Your task to perform on an android device: Add logitech g933 to the cart on target, then select checkout. Image 0: 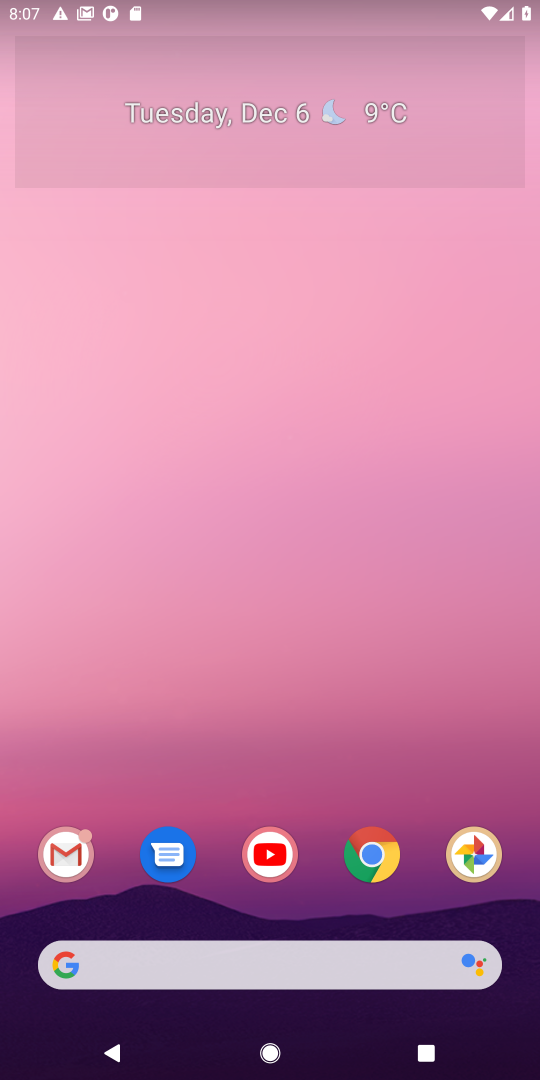
Step 0: click (369, 863)
Your task to perform on an android device: Add logitech g933 to the cart on target, then select checkout. Image 1: 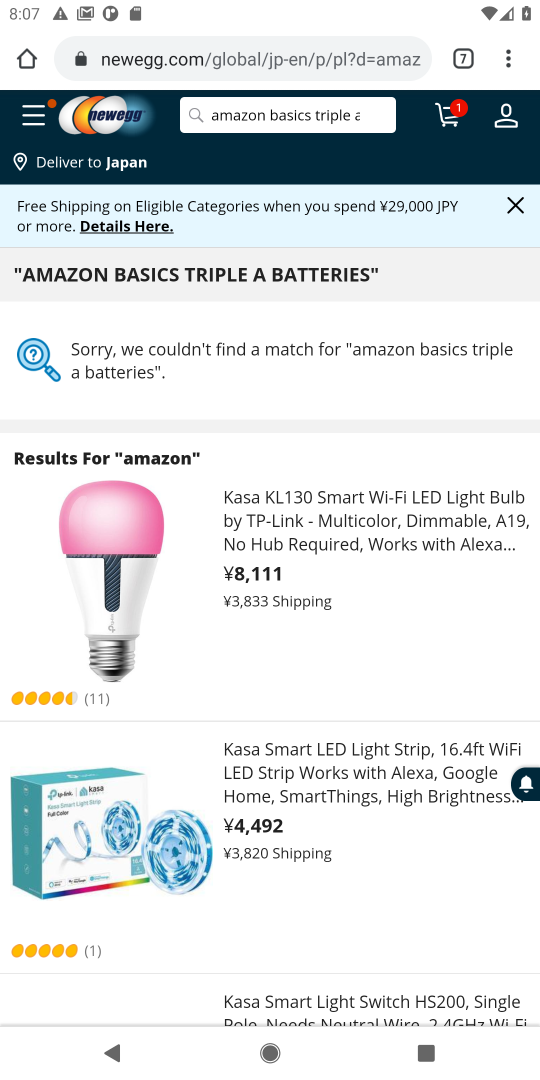
Step 1: click (468, 56)
Your task to perform on an android device: Add logitech g933 to the cart on target, then select checkout. Image 2: 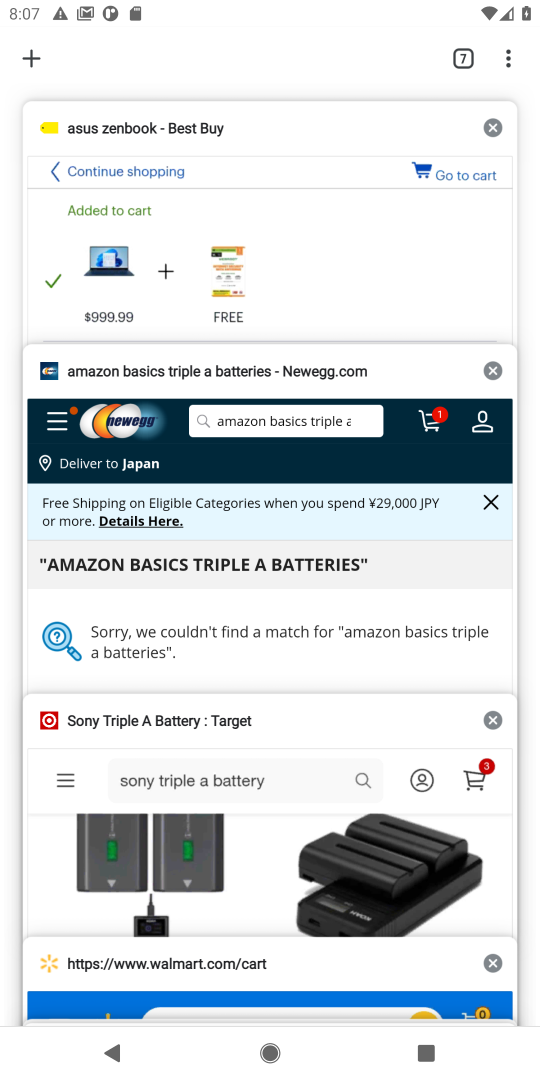
Step 2: click (170, 848)
Your task to perform on an android device: Add logitech g933 to the cart on target, then select checkout. Image 3: 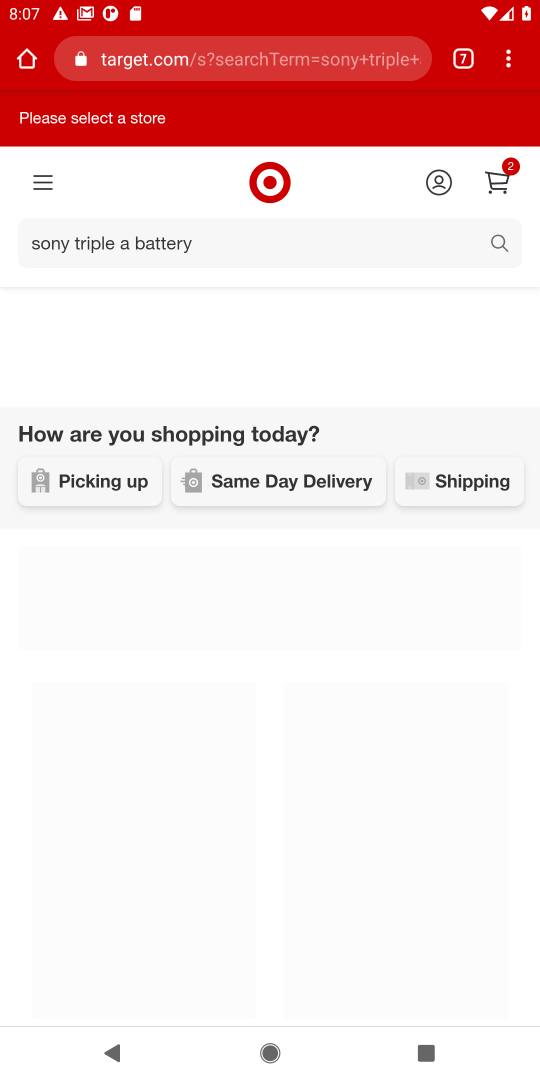
Step 3: click (239, 251)
Your task to perform on an android device: Add logitech g933 to the cart on target, then select checkout. Image 4: 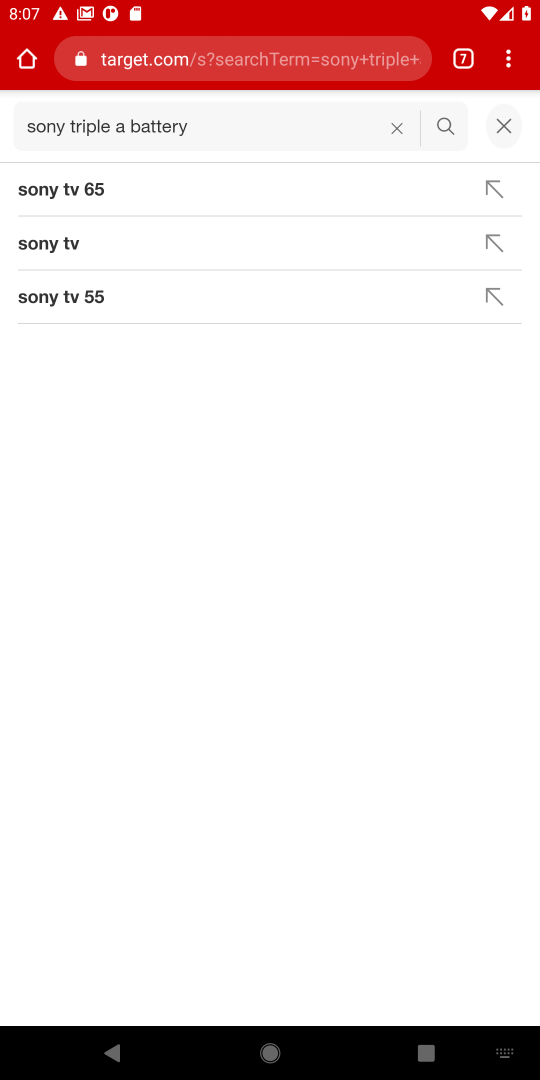
Step 4: click (403, 126)
Your task to perform on an android device: Add logitech g933 to the cart on target, then select checkout. Image 5: 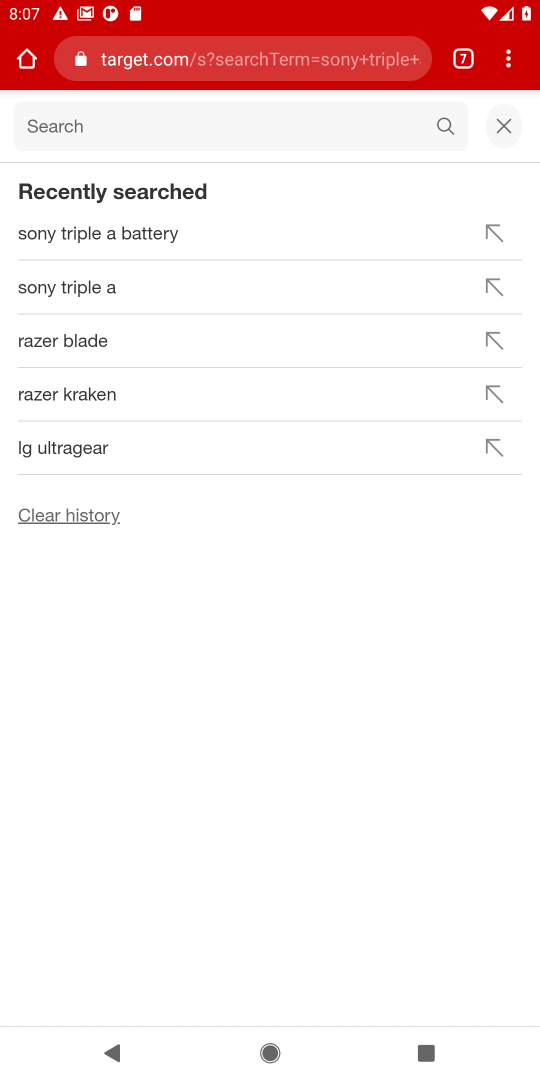
Step 5: type "logitech g933"
Your task to perform on an android device: Add logitech g933 to the cart on target, then select checkout. Image 6: 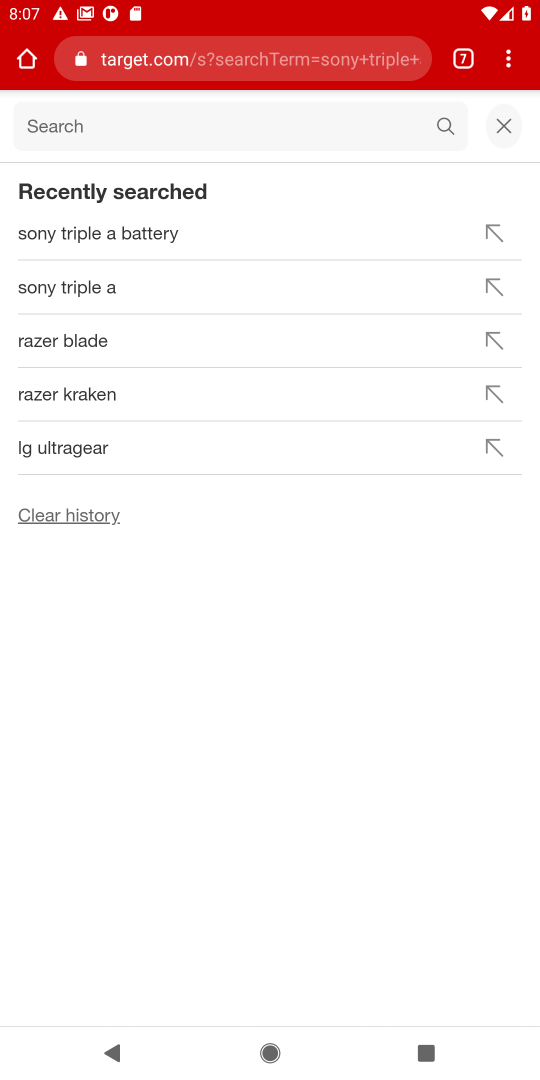
Step 6: click (305, 122)
Your task to perform on an android device: Add logitech g933 to the cart on target, then select checkout. Image 7: 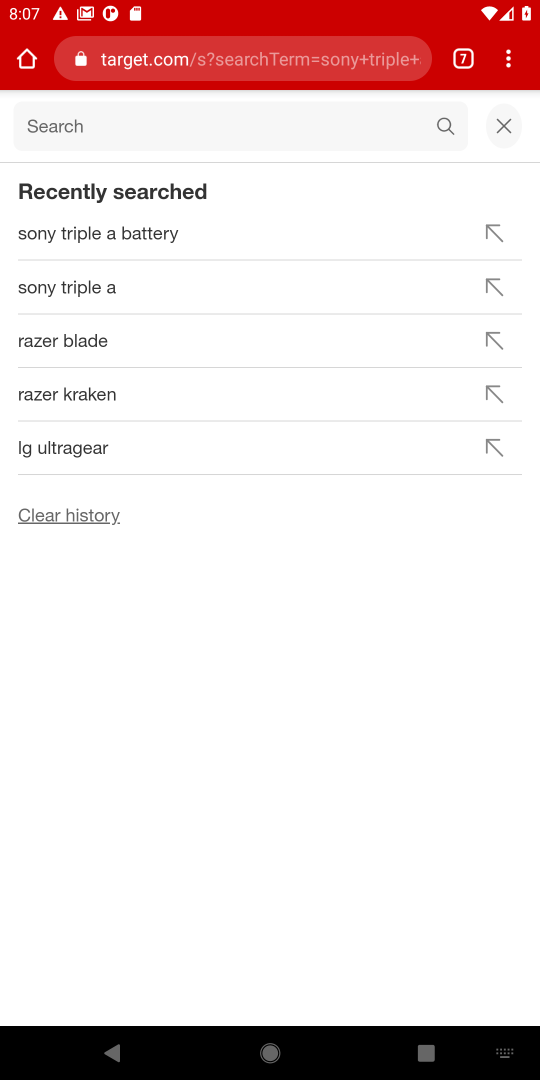
Step 7: type "logitech g933"
Your task to perform on an android device: Add logitech g933 to the cart on target, then select checkout. Image 8: 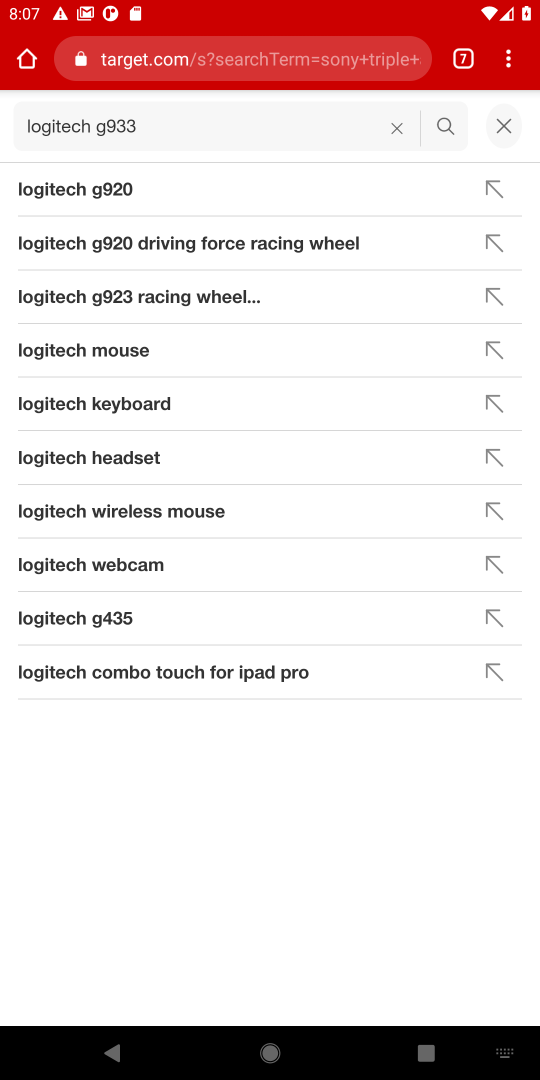
Step 8: click (440, 126)
Your task to perform on an android device: Add logitech g933 to the cart on target, then select checkout. Image 9: 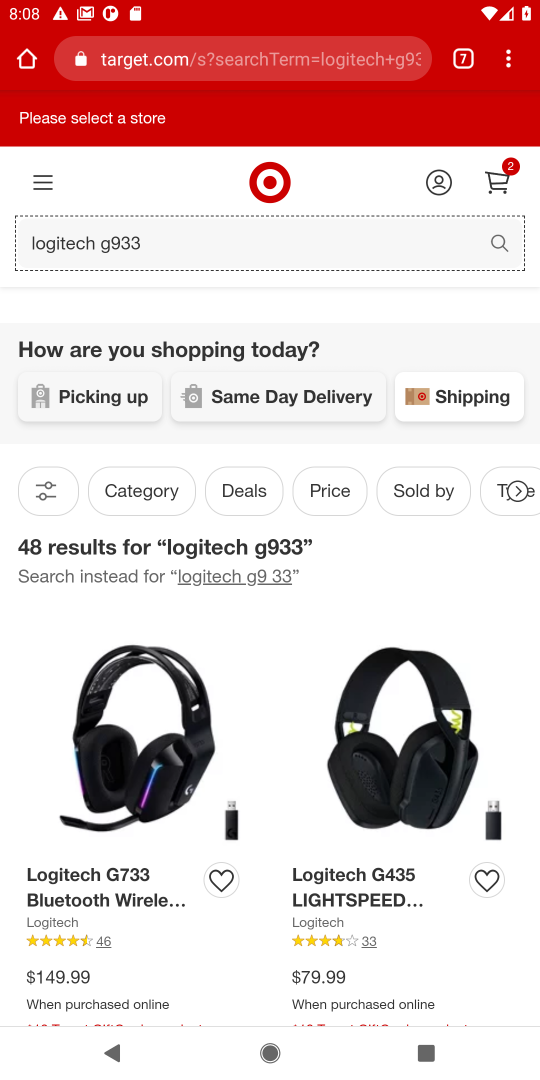
Step 9: task complete